Your task to perform on an android device: search for starred emails in the gmail app Image 0: 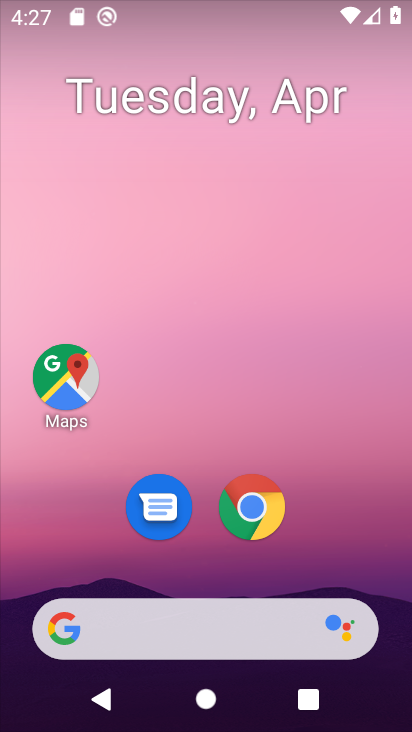
Step 0: drag from (302, 560) to (207, 34)
Your task to perform on an android device: search for starred emails in the gmail app Image 1: 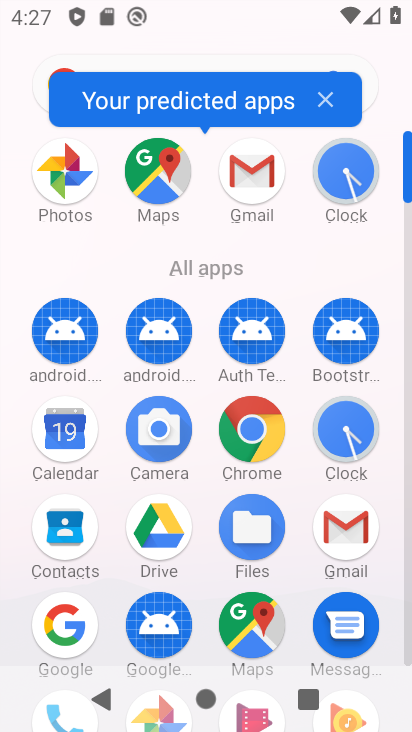
Step 1: click (342, 537)
Your task to perform on an android device: search for starred emails in the gmail app Image 2: 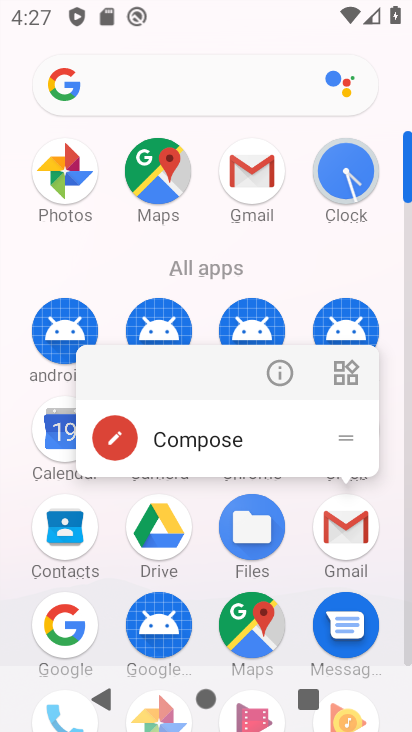
Step 2: click (354, 530)
Your task to perform on an android device: search for starred emails in the gmail app Image 3: 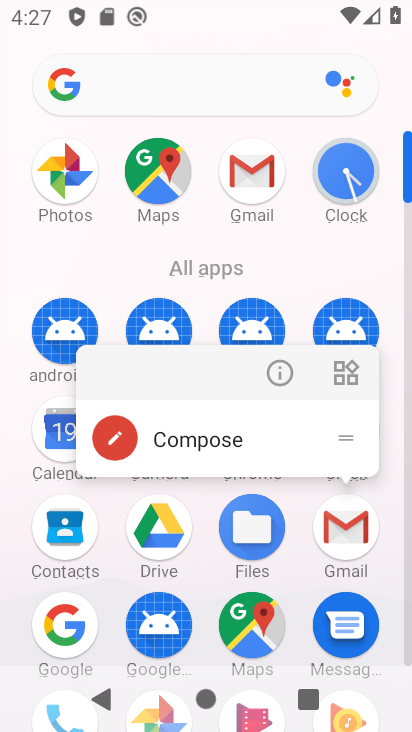
Step 3: click (354, 530)
Your task to perform on an android device: search for starred emails in the gmail app Image 4: 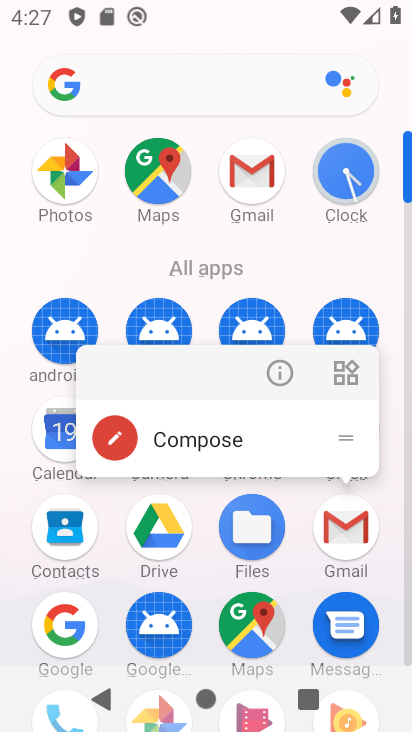
Step 4: click (354, 530)
Your task to perform on an android device: search for starred emails in the gmail app Image 5: 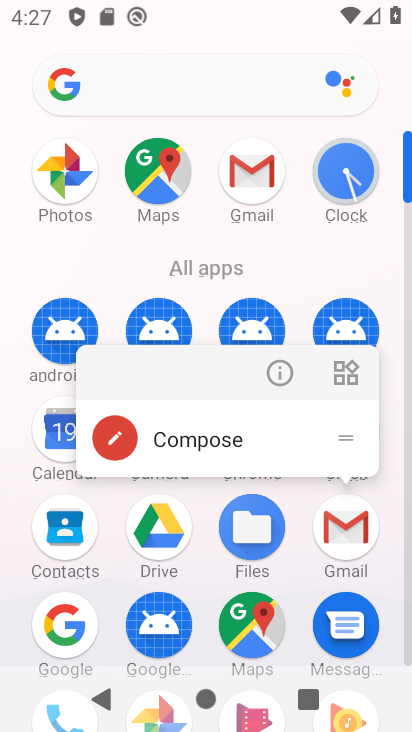
Step 5: click (354, 530)
Your task to perform on an android device: search for starred emails in the gmail app Image 6: 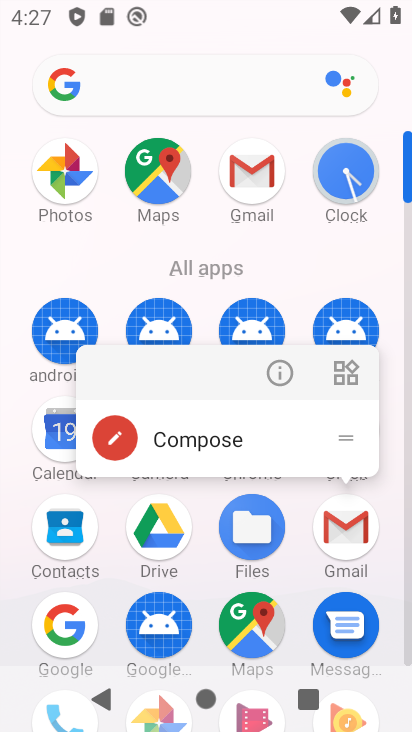
Step 6: click (344, 537)
Your task to perform on an android device: search for starred emails in the gmail app Image 7: 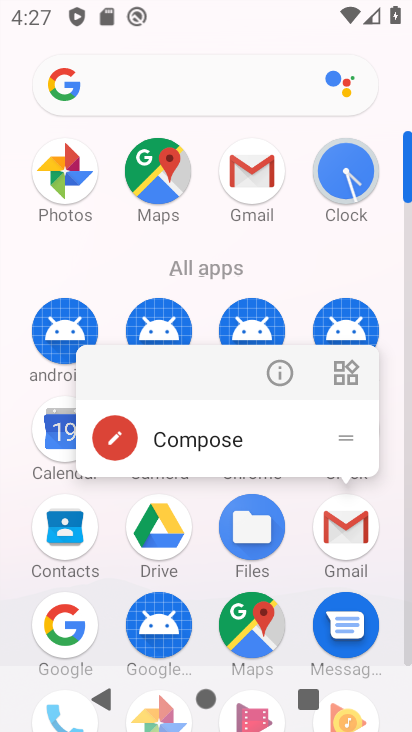
Step 7: click (351, 532)
Your task to perform on an android device: search for starred emails in the gmail app Image 8: 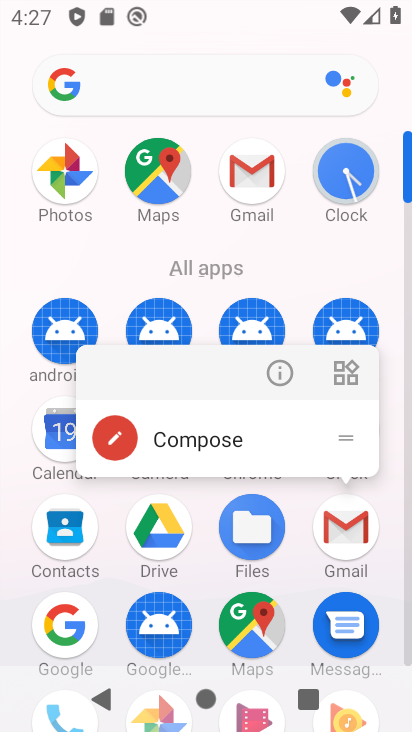
Step 8: click (351, 532)
Your task to perform on an android device: search for starred emails in the gmail app Image 9: 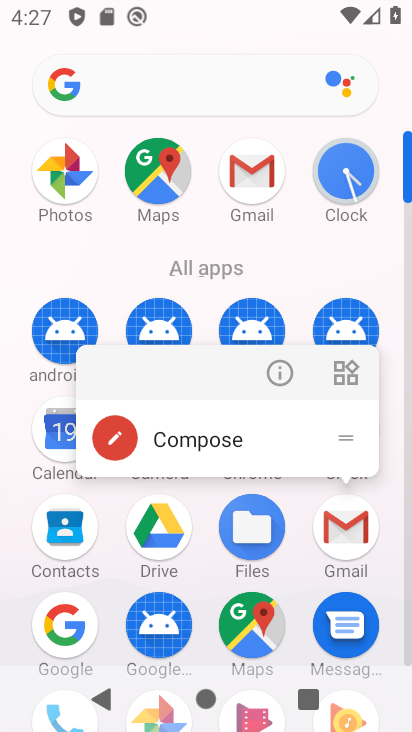
Step 9: click (351, 532)
Your task to perform on an android device: search for starred emails in the gmail app Image 10: 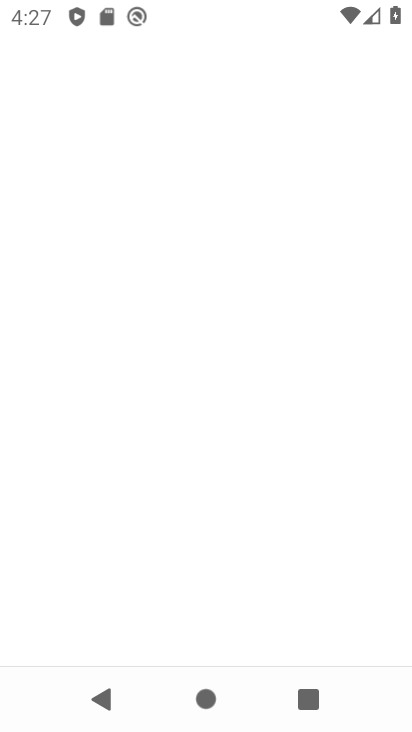
Step 10: click (351, 532)
Your task to perform on an android device: search for starred emails in the gmail app Image 11: 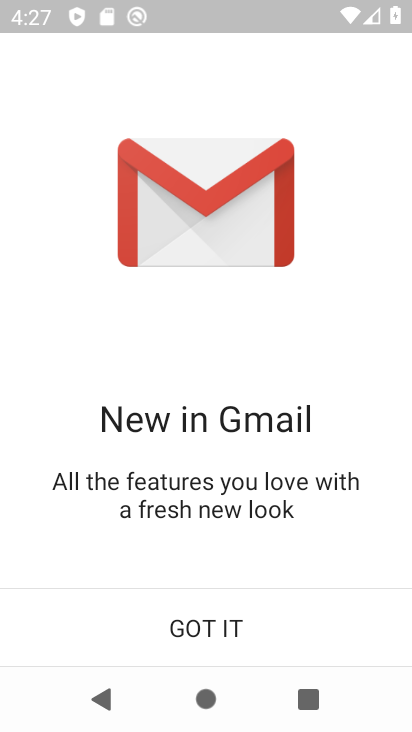
Step 11: click (204, 624)
Your task to perform on an android device: search for starred emails in the gmail app Image 12: 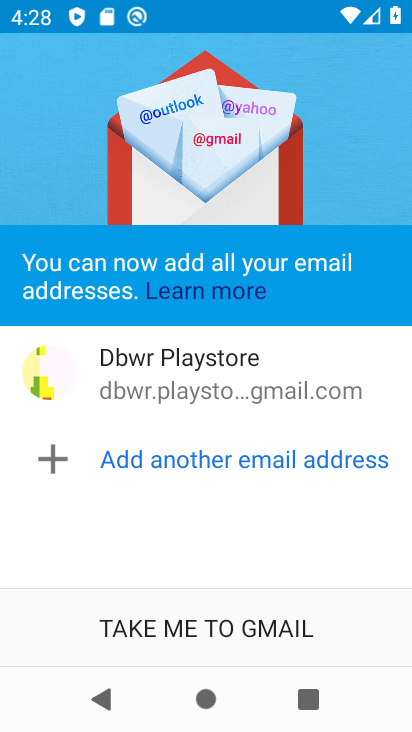
Step 12: click (214, 638)
Your task to perform on an android device: search for starred emails in the gmail app Image 13: 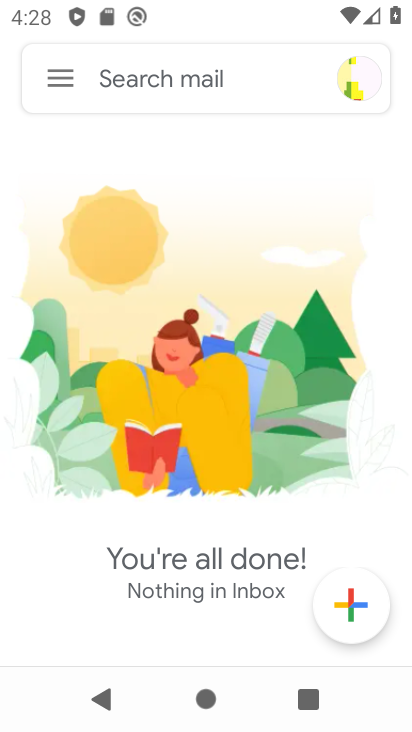
Step 13: drag from (231, 603) to (212, 415)
Your task to perform on an android device: search for starred emails in the gmail app Image 14: 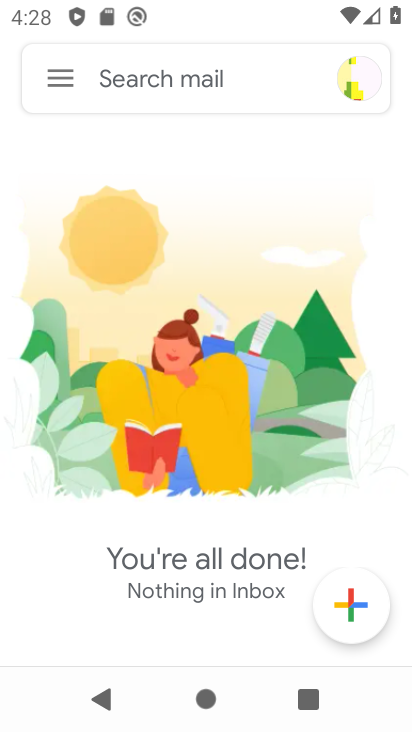
Step 14: click (60, 79)
Your task to perform on an android device: search for starred emails in the gmail app Image 15: 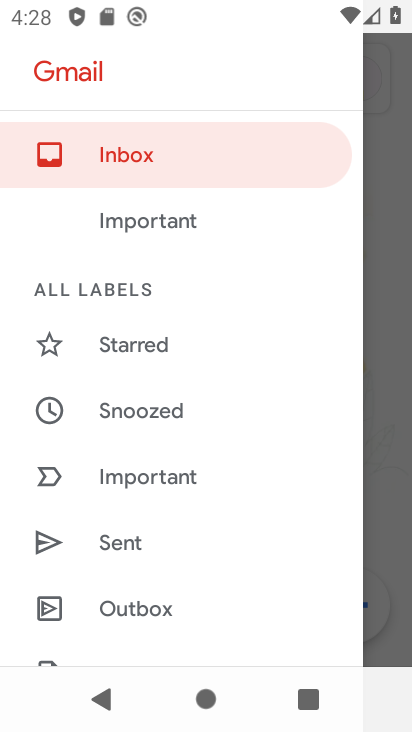
Step 15: click (152, 351)
Your task to perform on an android device: search for starred emails in the gmail app Image 16: 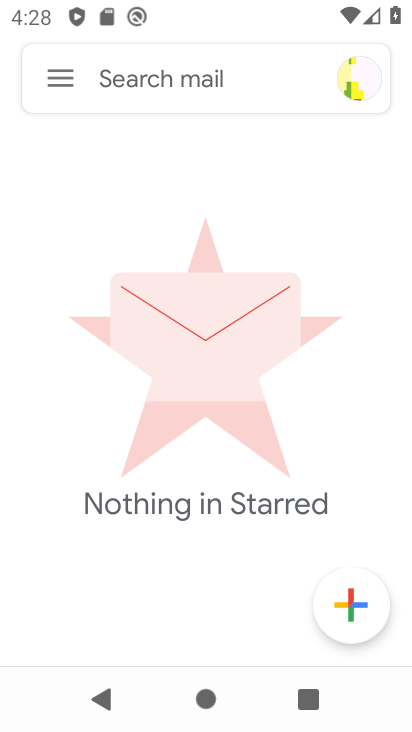
Step 16: task complete